Your task to perform on an android device: Open Google Chrome Image 0: 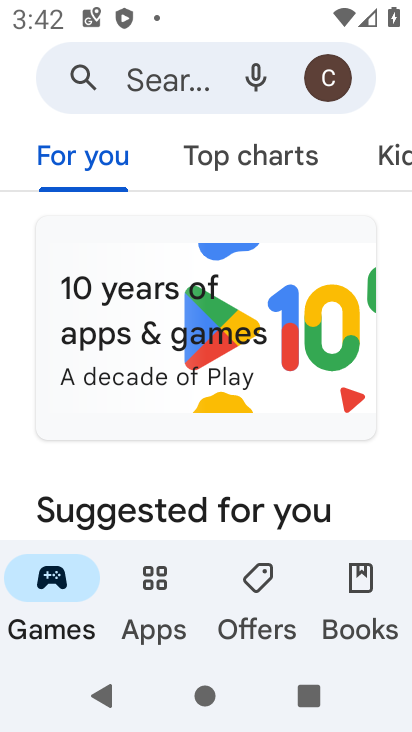
Step 0: press back button
Your task to perform on an android device: Open Google Chrome Image 1: 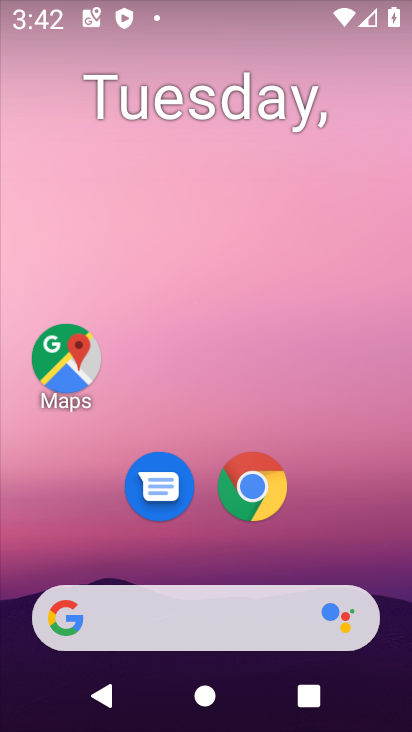
Step 1: click (243, 480)
Your task to perform on an android device: Open Google Chrome Image 2: 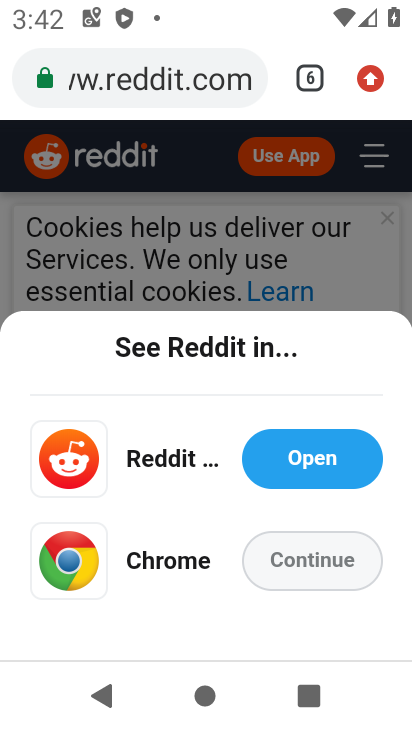
Step 2: task complete